Your task to perform on an android device: read, delete, or share a saved page in the chrome app Image 0: 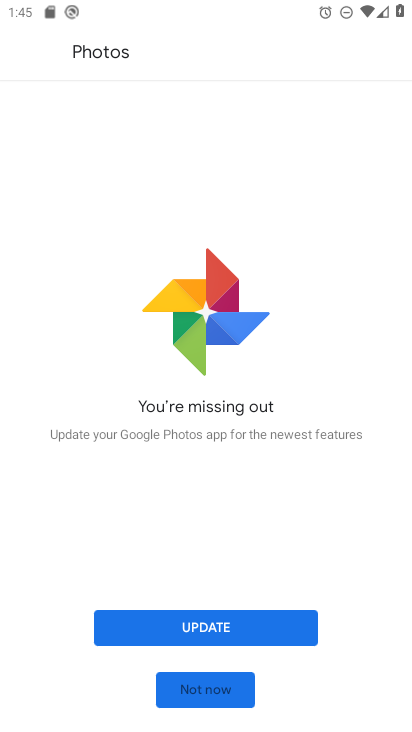
Step 0: press home button
Your task to perform on an android device: read, delete, or share a saved page in the chrome app Image 1: 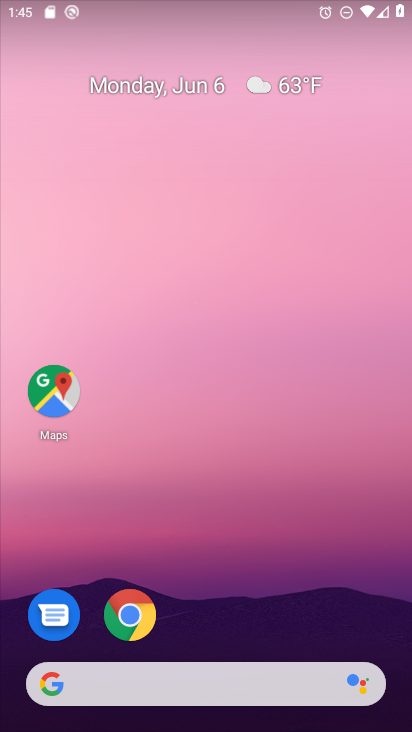
Step 1: drag from (251, 615) to (203, 46)
Your task to perform on an android device: read, delete, or share a saved page in the chrome app Image 2: 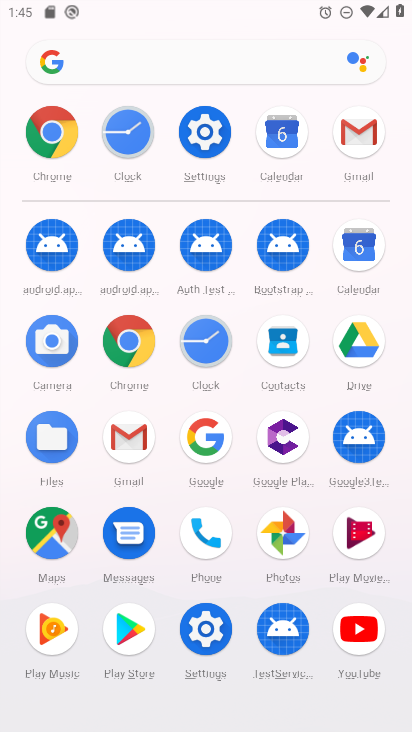
Step 2: click (134, 338)
Your task to perform on an android device: read, delete, or share a saved page in the chrome app Image 3: 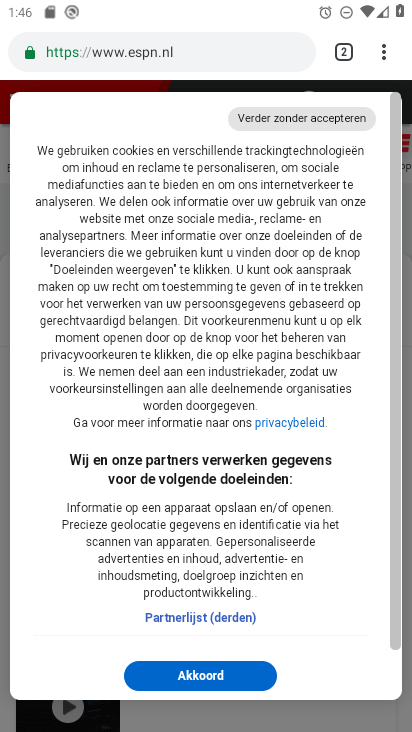
Step 3: click (380, 46)
Your task to perform on an android device: read, delete, or share a saved page in the chrome app Image 4: 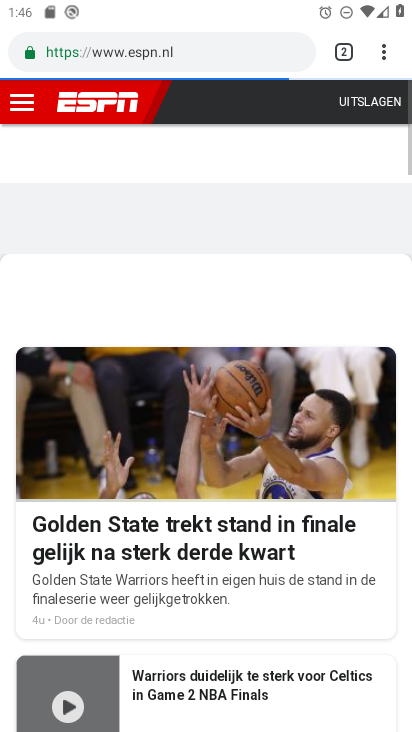
Step 4: click (380, 47)
Your task to perform on an android device: read, delete, or share a saved page in the chrome app Image 5: 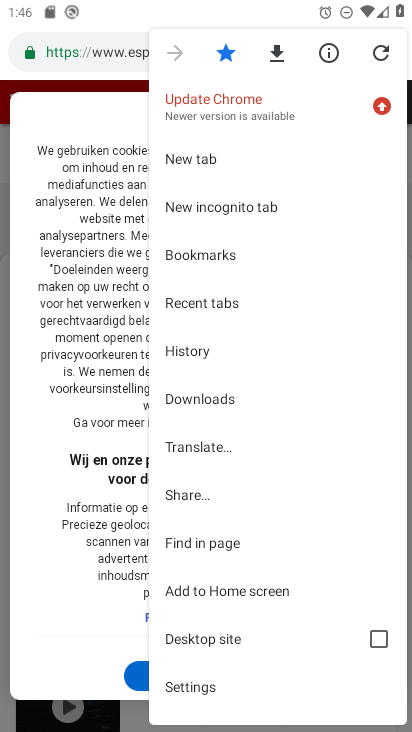
Step 5: click (205, 394)
Your task to perform on an android device: read, delete, or share a saved page in the chrome app Image 6: 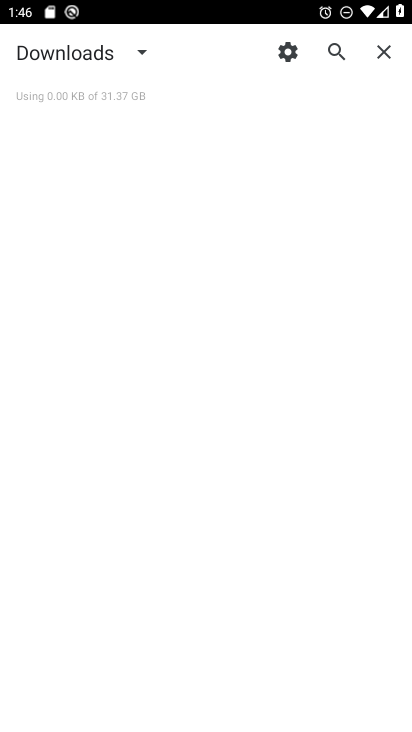
Step 6: click (144, 50)
Your task to perform on an android device: read, delete, or share a saved page in the chrome app Image 7: 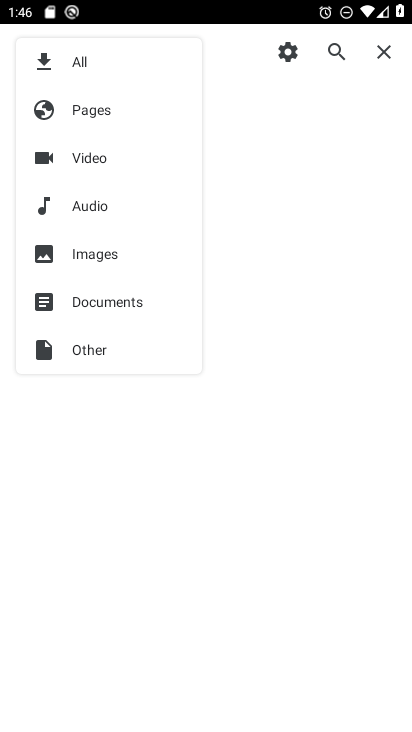
Step 7: click (90, 110)
Your task to perform on an android device: read, delete, or share a saved page in the chrome app Image 8: 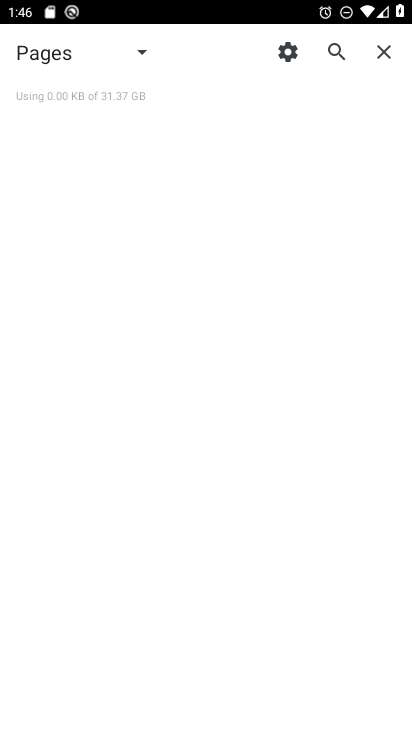
Step 8: task complete